Your task to perform on an android device: set an alarm Image 0: 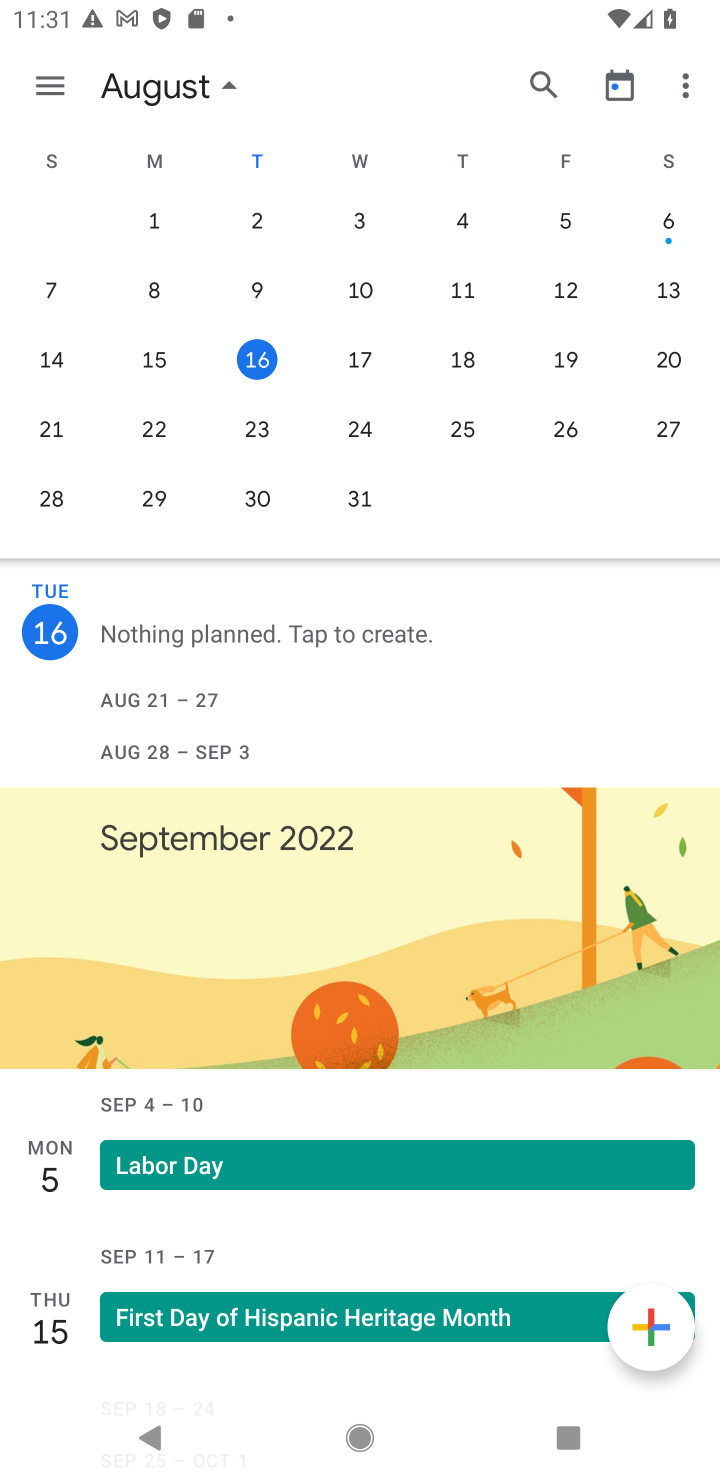
Step 0: press home button
Your task to perform on an android device: set an alarm Image 1: 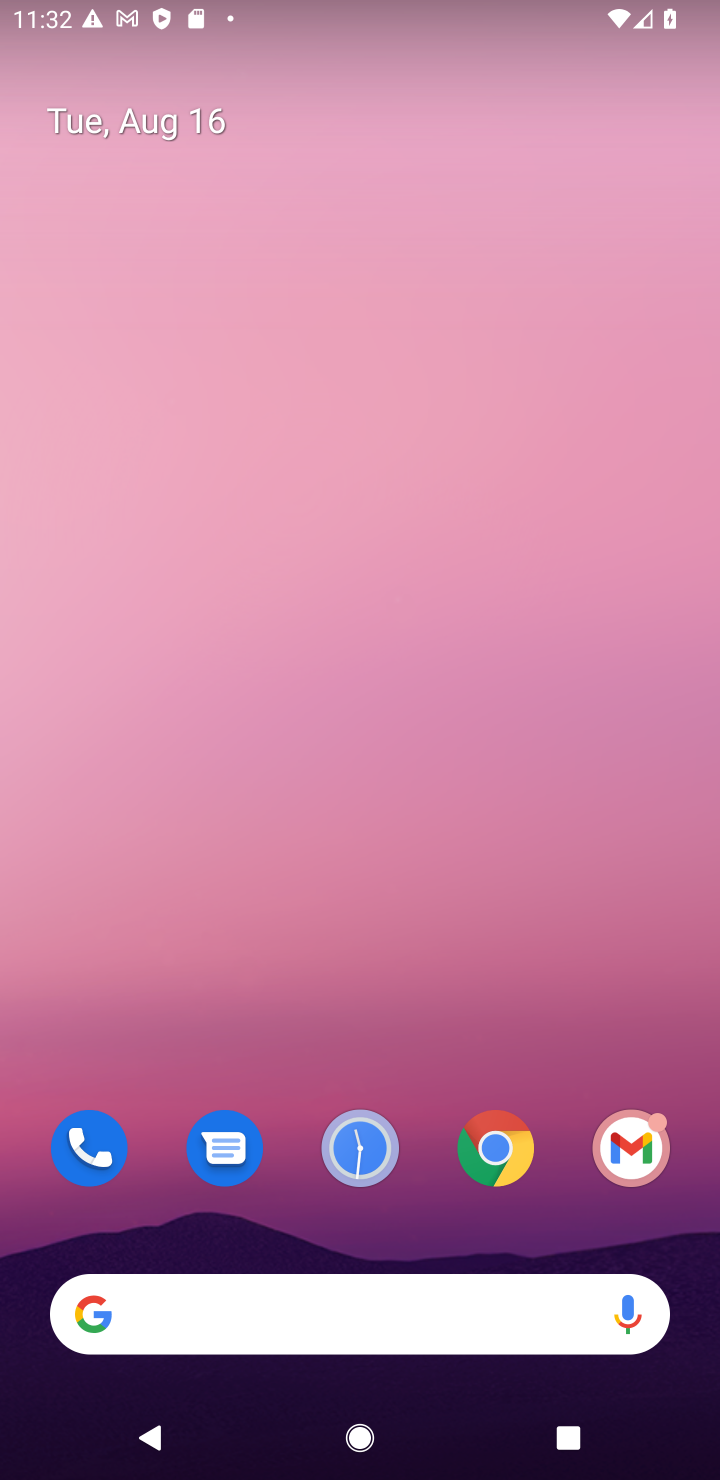
Step 1: drag from (185, 913) to (60, 63)
Your task to perform on an android device: set an alarm Image 2: 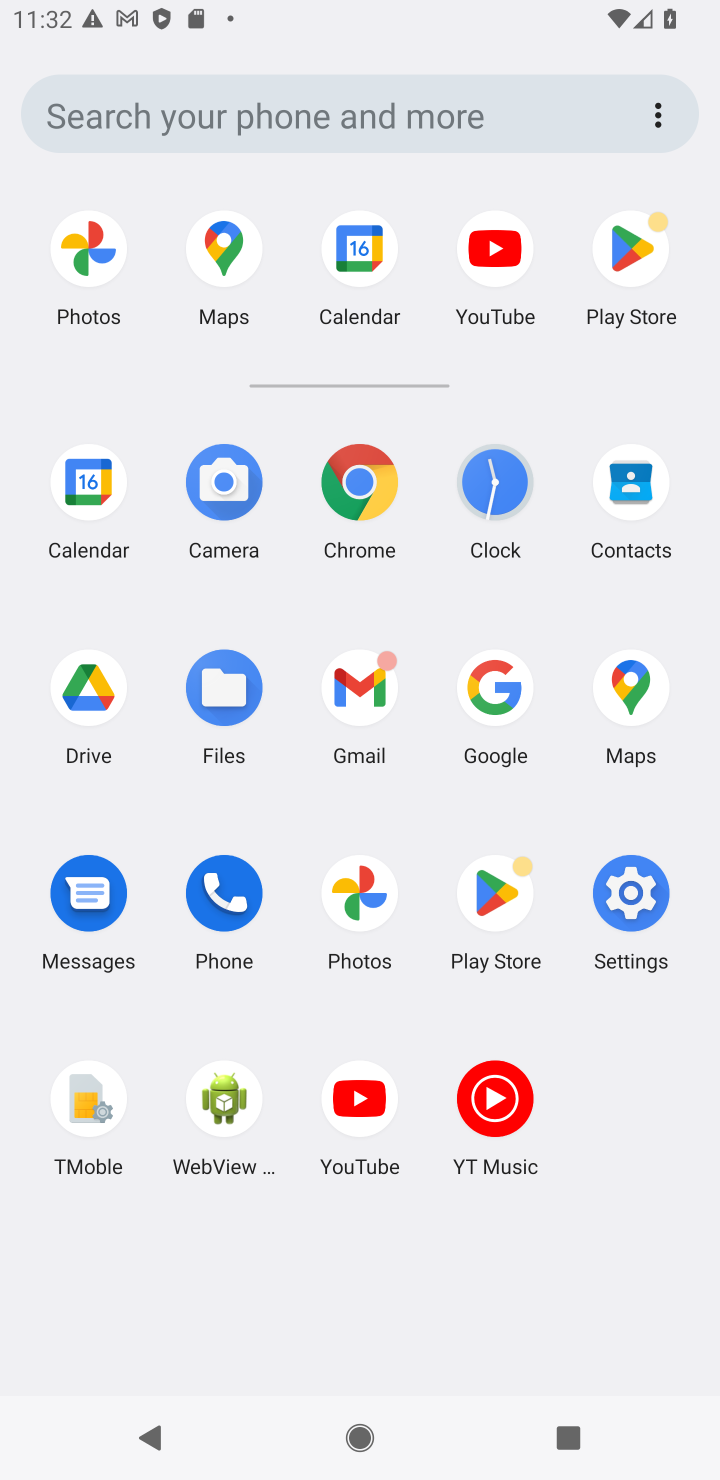
Step 2: click (494, 486)
Your task to perform on an android device: set an alarm Image 3: 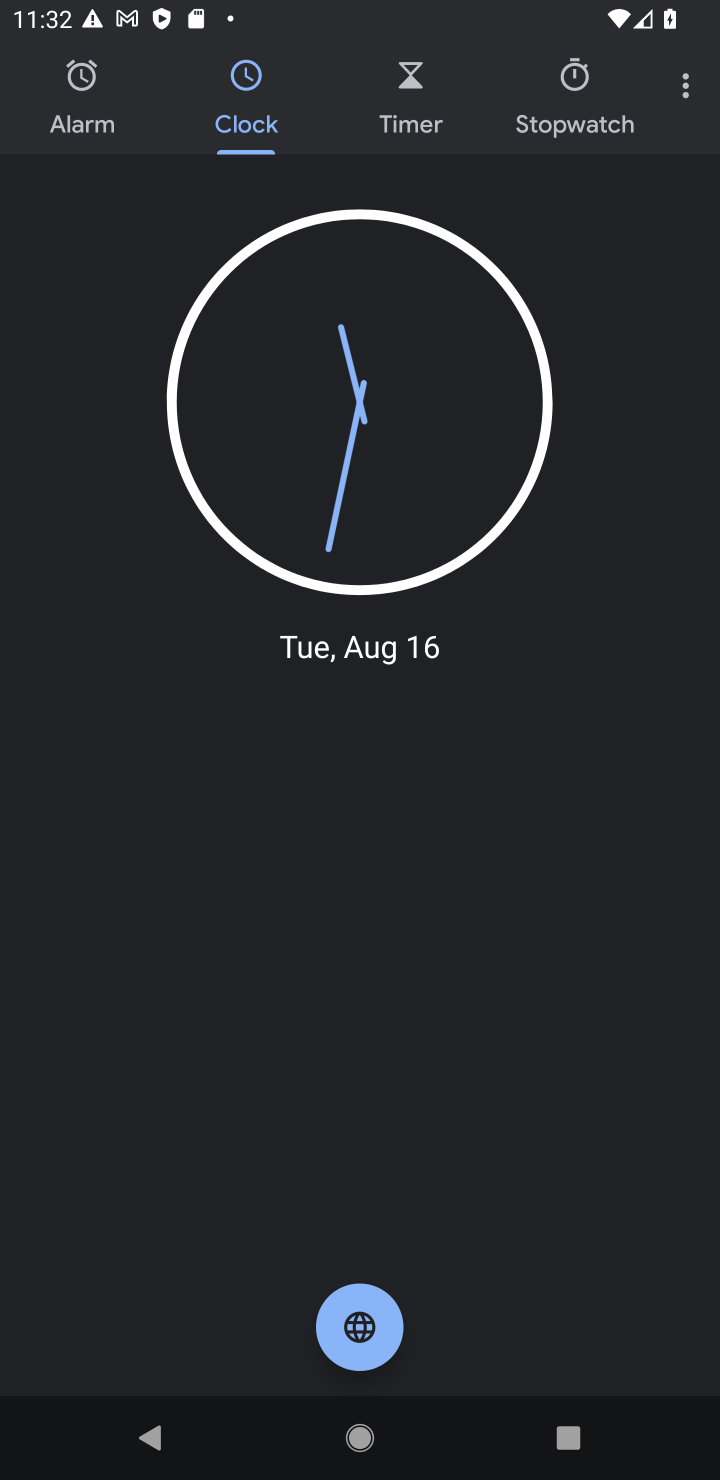
Step 3: click (47, 119)
Your task to perform on an android device: set an alarm Image 4: 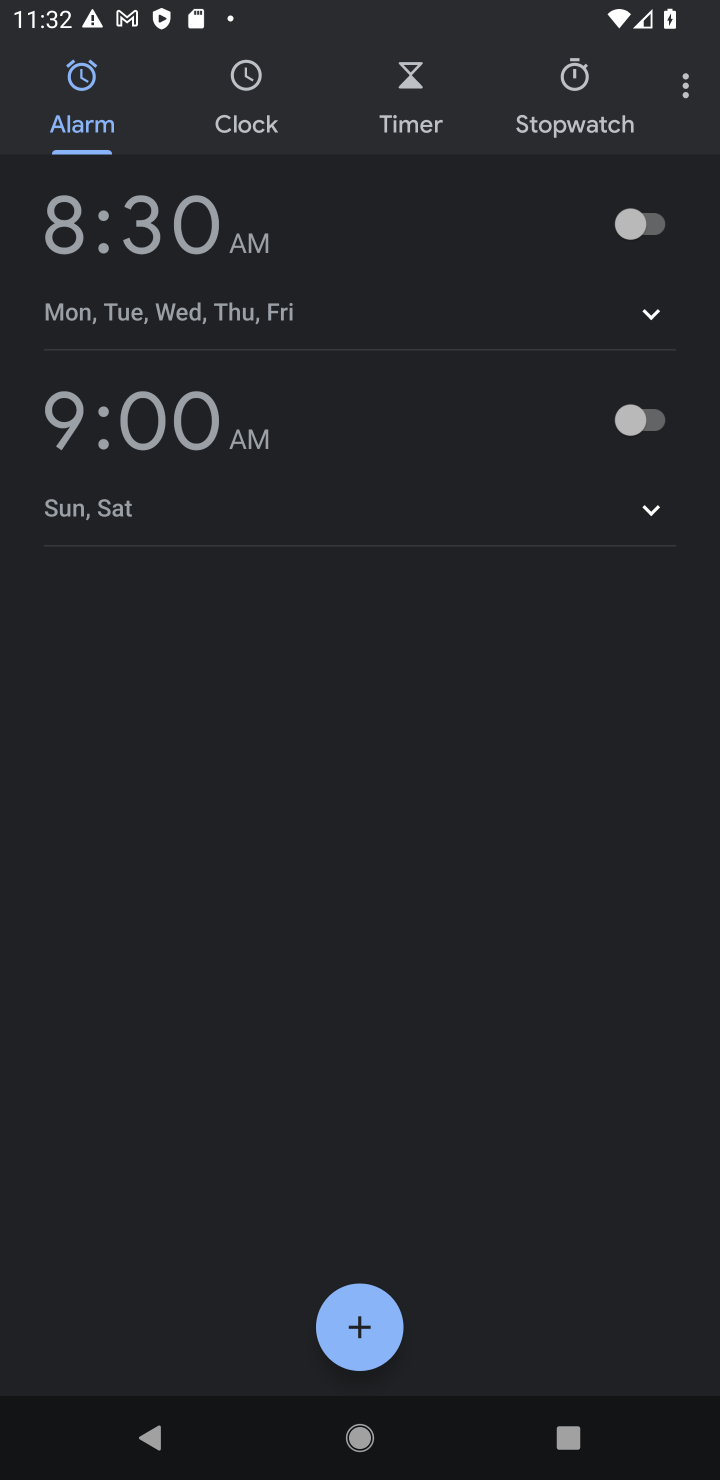
Step 4: task complete